Your task to perform on an android device: Open settings on Google Maps Image 0: 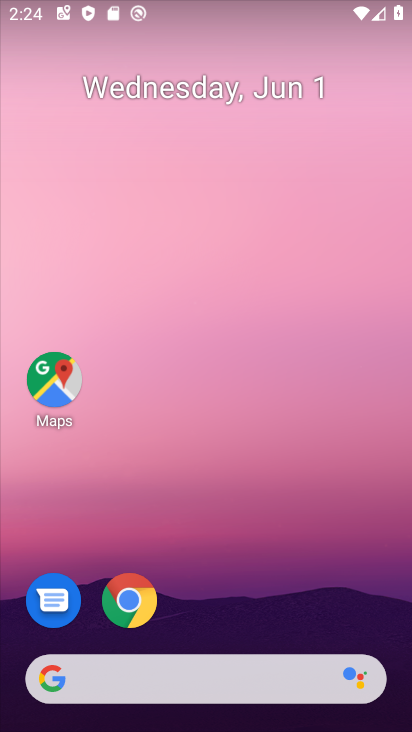
Step 0: drag from (275, 532) to (200, 5)
Your task to perform on an android device: Open settings on Google Maps Image 1: 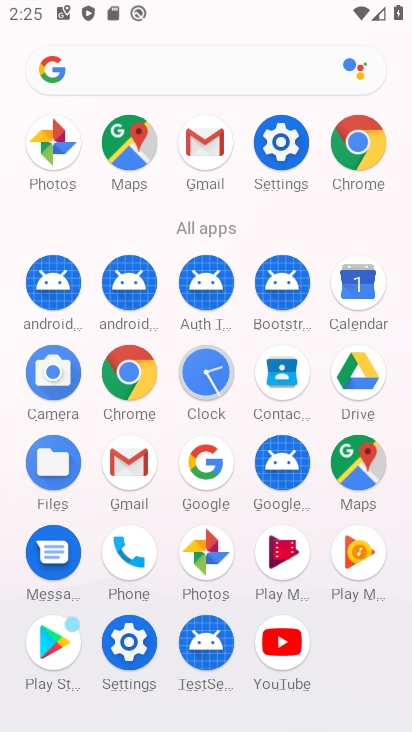
Step 1: drag from (15, 490) to (15, 217)
Your task to perform on an android device: Open settings on Google Maps Image 2: 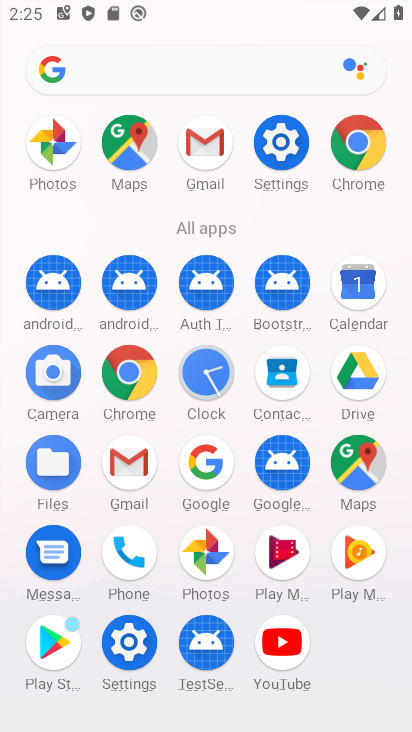
Step 2: click (355, 463)
Your task to perform on an android device: Open settings on Google Maps Image 3: 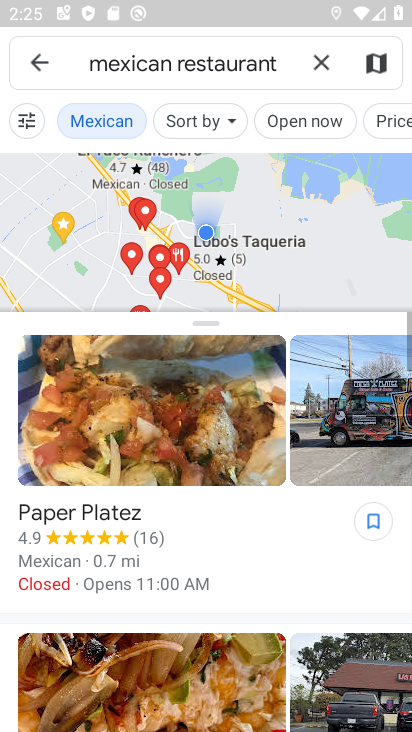
Step 3: click (41, 60)
Your task to perform on an android device: Open settings on Google Maps Image 4: 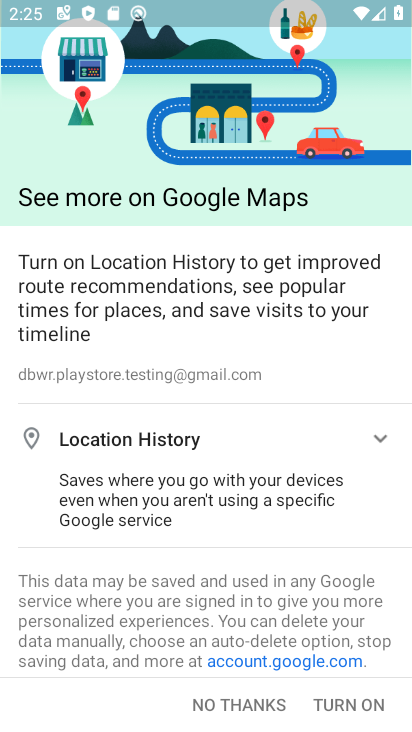
Step 4: click (344, 700)
Your task to perform on an android device: Open settings on Google Maps Image 5: 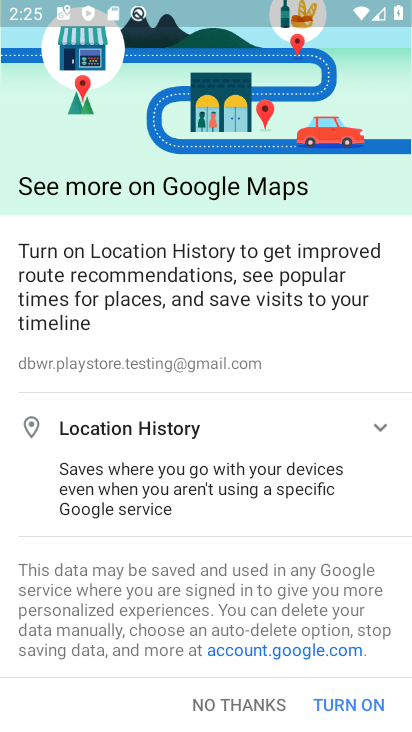
Step 5: click (348, 699)
Your task to perform on an android device: Open settings on Google Maps Image 6: 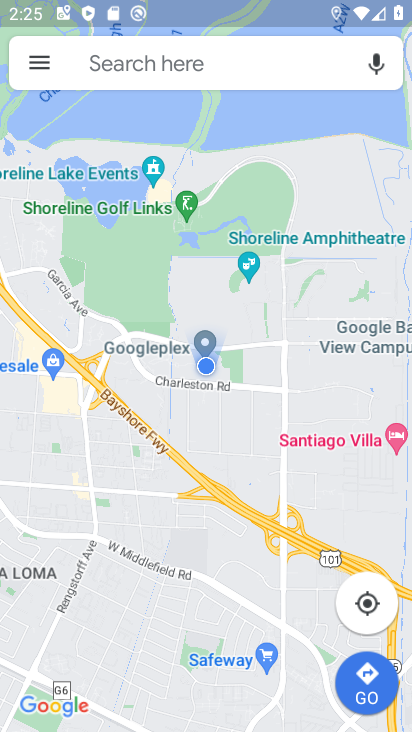
Step 6: click (28, 60)
Your task to perform on an android device: Open settings on Google Maps Image 7: 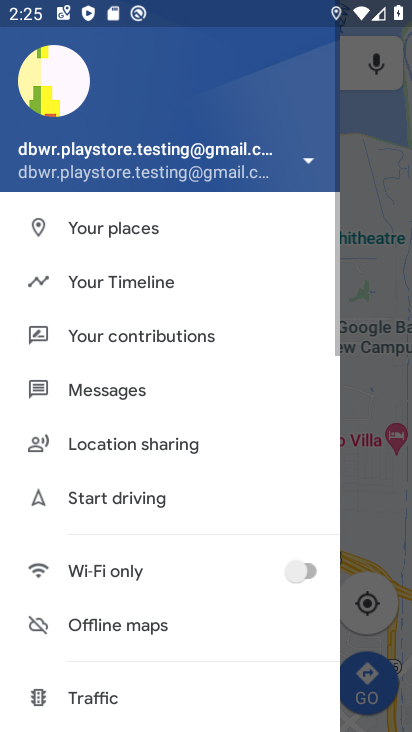
Step 7: drag from (143, 571) to (159, 159)
Your task to perform on an android device: Open settings on Google Maps Image 8: 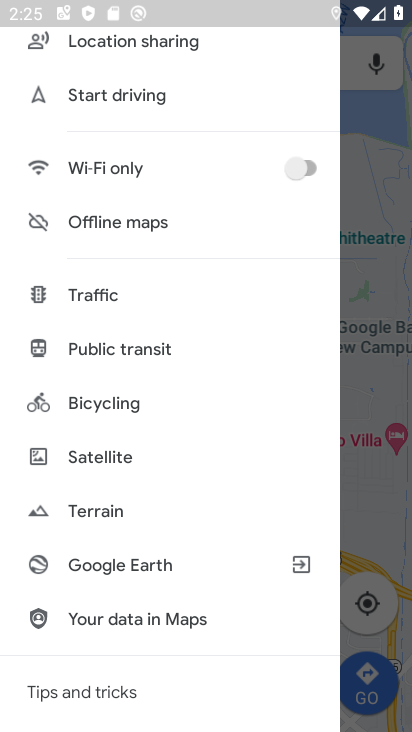
Step 8: drag from (172, 618) to (179, 219)
Your task to perform on an android device: Open settings on Google Maps Image 9: 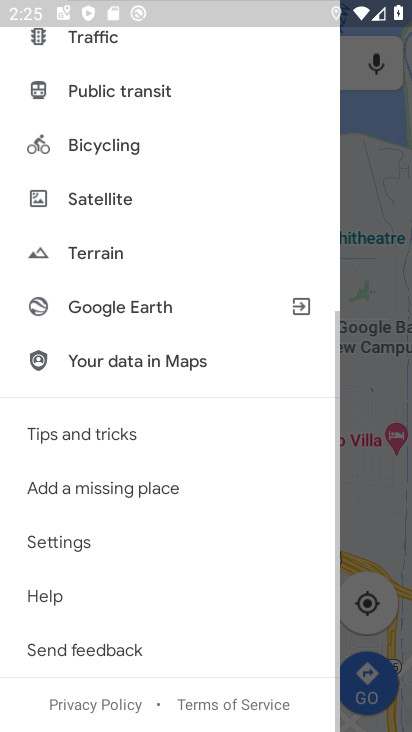
Step 9: click (44, 535)
Your task to perform on an android device: Open settings on Google Maps Image 10: 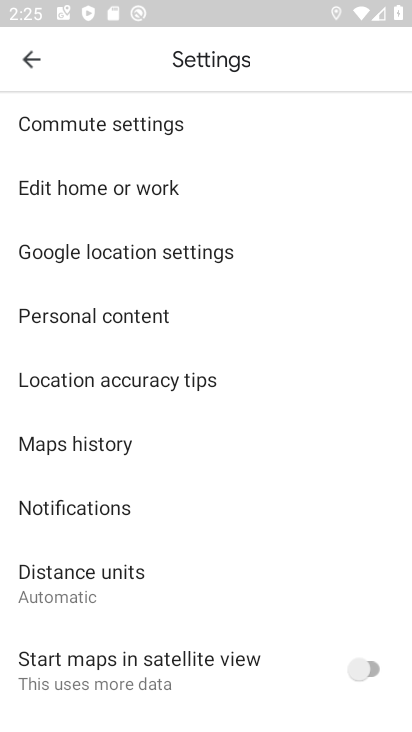
Step 10: task complete